Your task to perform on an android device: Open ESPN.com Image 0: 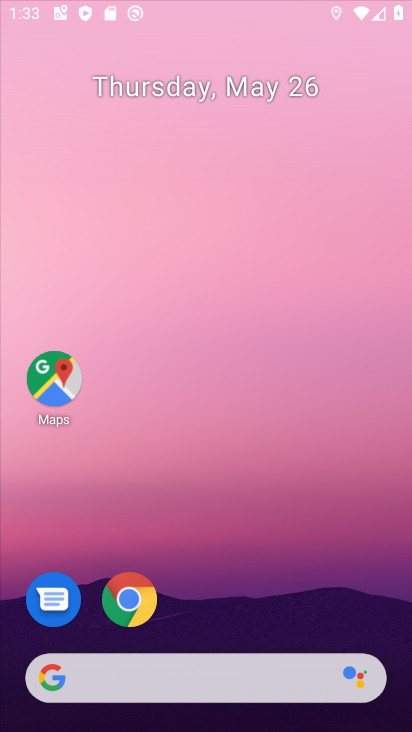
Step 0: click (307, 67)
Your task to perform on an android device: Open ESPN.com Image 1: 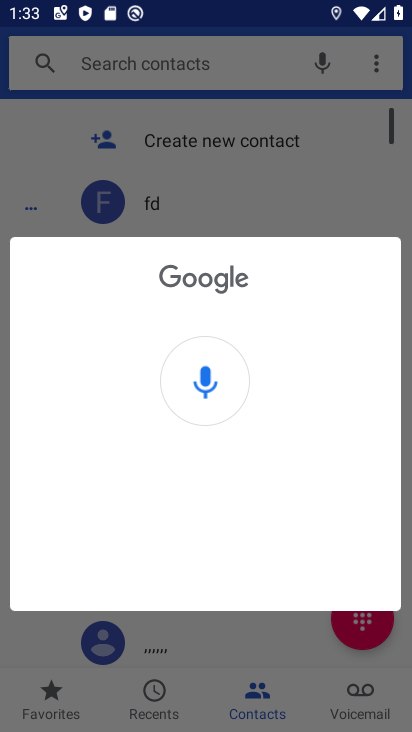
Step 1: click (137, 565)
Your task to perform on an android device: Open ESPN.com Image 2: 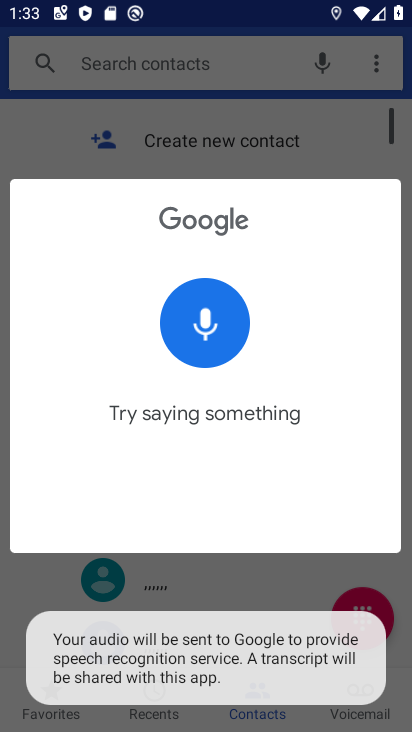
Step 2: press home button
Your task to perform on an android device: Open ESPN.com Image 3: 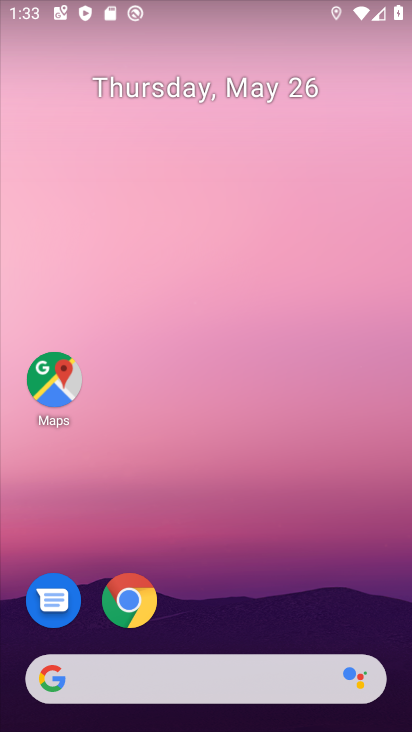
Step 3: click (147, 609)
Your task to perform on an android device: Open ESPN.com Image 4: 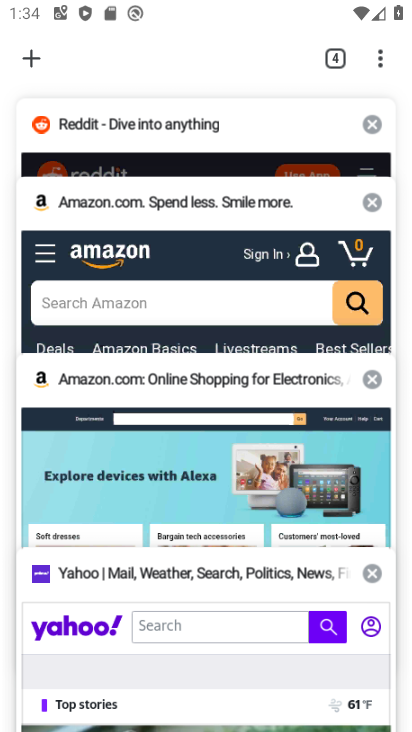
Step 4: click (20, 67)
Your task to perform on an android device: Open ESPN.com Image 5: 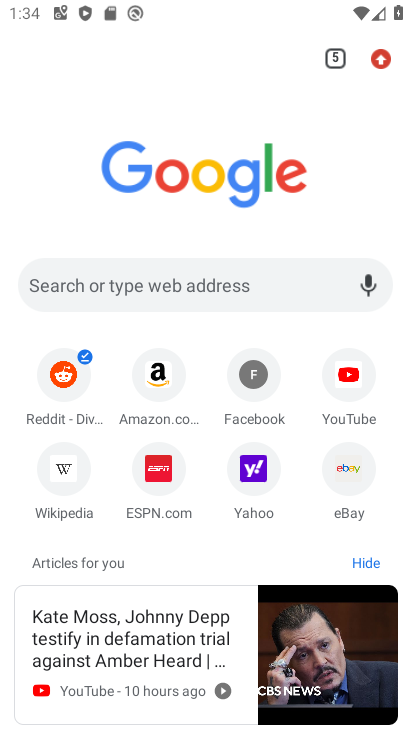
Step 5: click (140, 479)
Your task to perform on an android device: Open ESPN.com Image 6: 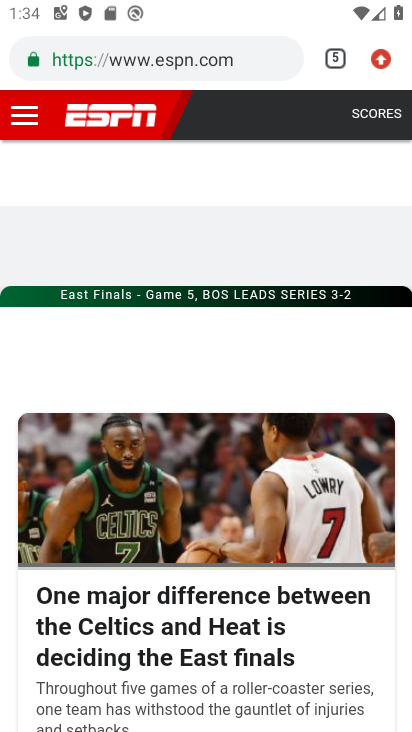
Step 6: task complete